Your task to perform on an android device: Go to Yahoo.com Image 0: 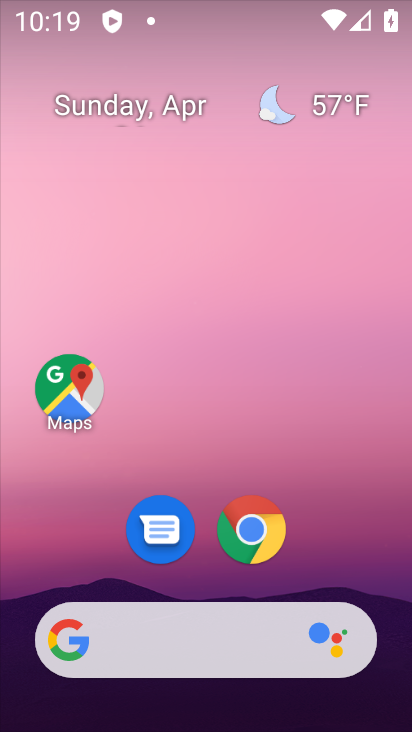
Step 0: click (254, 534)
Your task to perform on an android device: Go to Yahoo.com Image 1: 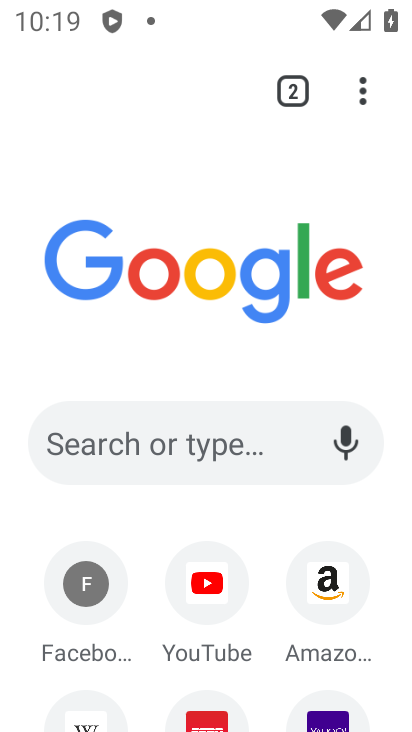
Step 1: click (331, 714)
Your task to perform on an android device: Go to Yahoo.com Image 2: 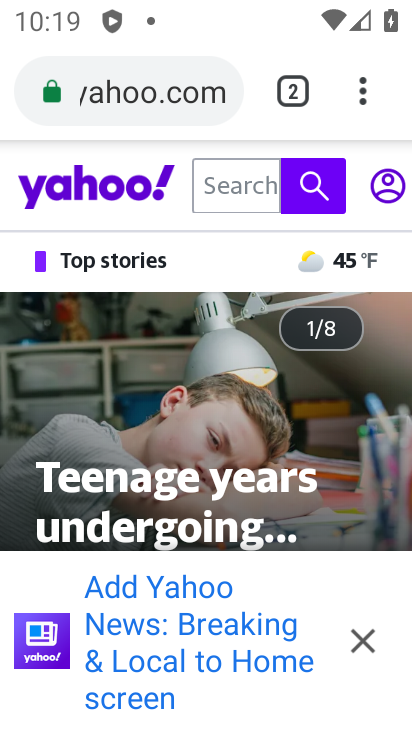
Step 2: task complete